Your task to perform on an android device: delete browsing data in the chrome app Image 0: 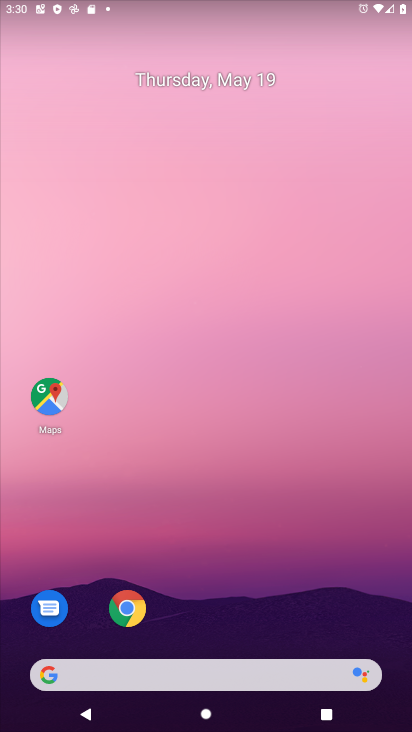
Step 0: click (141, 621)
Your task to perform on an android device: delete browsing data in the chrome app Image 1: 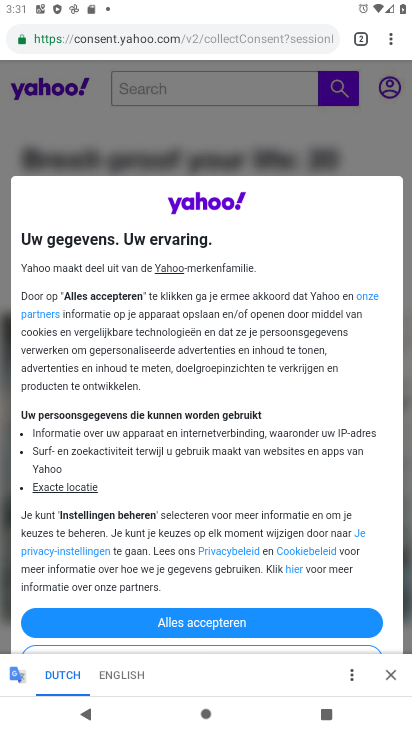
Step 1: click (392, 37)
Your task to perform on an android device: delete browsing data in the chrome app Image 2: 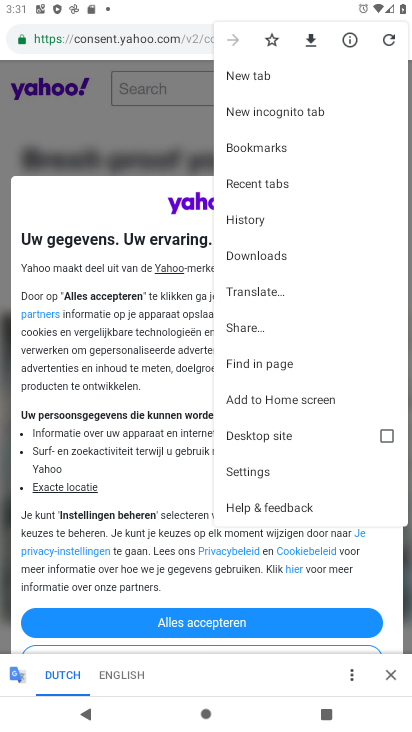
Step 2: click (262, 477)
Your task to perform on an android device: delete browsing data in the chrome app Image 3: 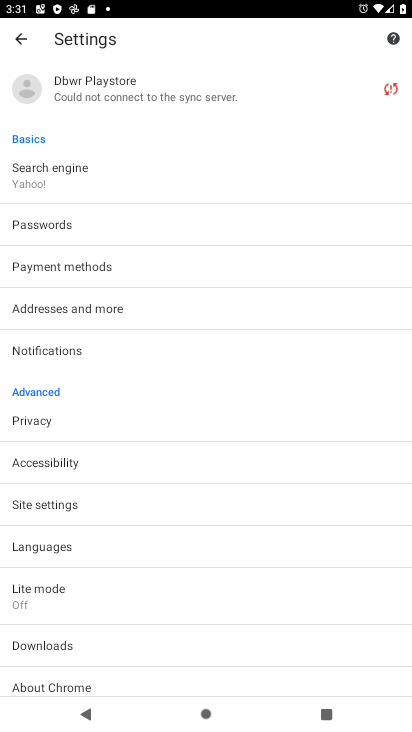
Step 3: click (25, 40)
Your task to perform on an android device: delete browsing data in the chrome app Image 4: 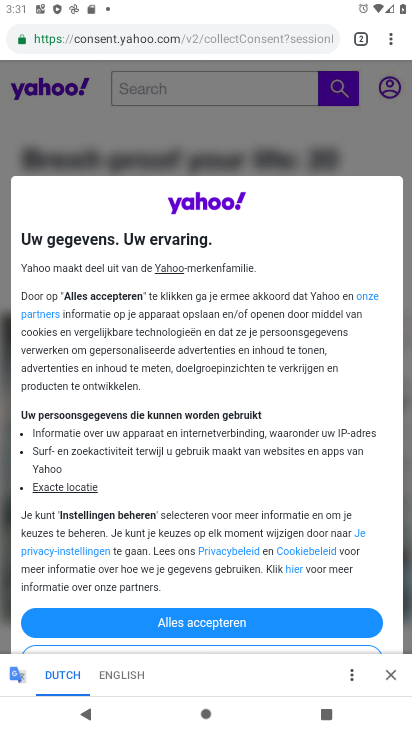
Step 4: click (402, 35)
Your task to perform on an android device: delete browsing data in the chrome app Image 5: 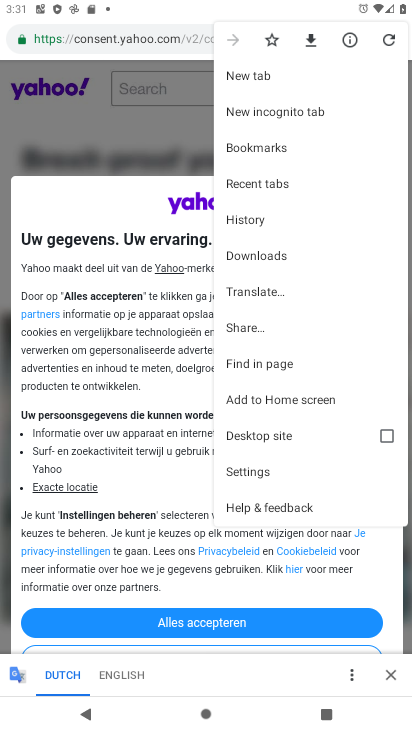
Step 5: click (264, 218)
Your task to perform on an android device: delete browsing data in the chrome app Image 6: 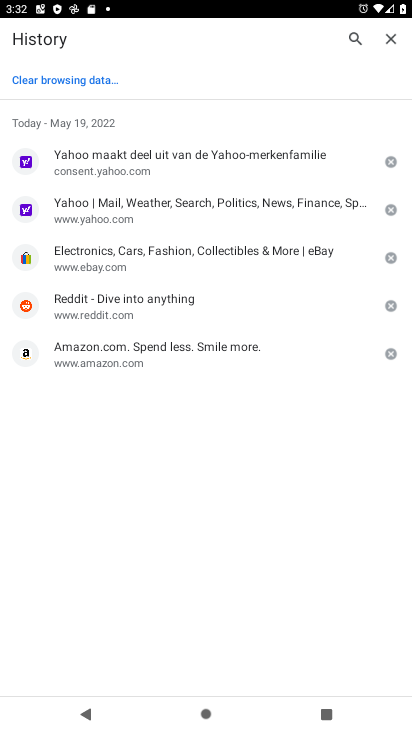
Step 6: click (108, 82)
Your task to perform on an android device: delete browsing data in the chrome app Image 7: 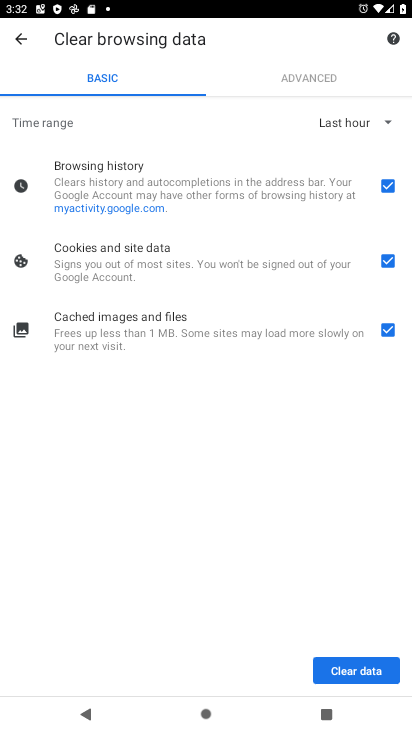
Step 7: click (364, 670)
Your task to perform on an android device: delete browsing data in the chrome app Image 8: 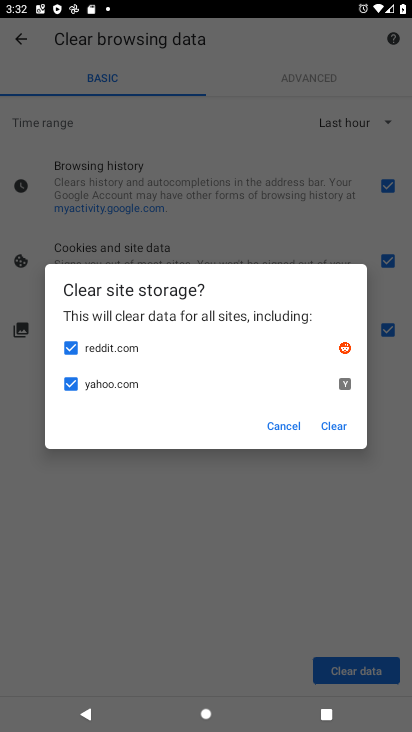
Step 8: click (319, 434)
Your task to perform on an android device: delete browsing data in the chrome app Image 9: 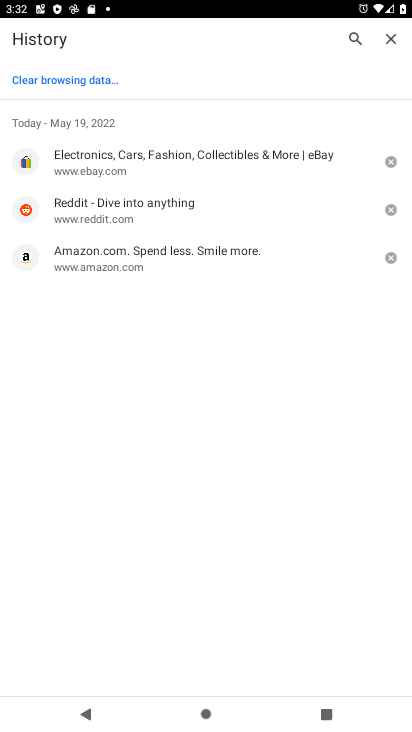
Step 9: task complete